Your task to perform on an android device: Open Amazon Image 0: 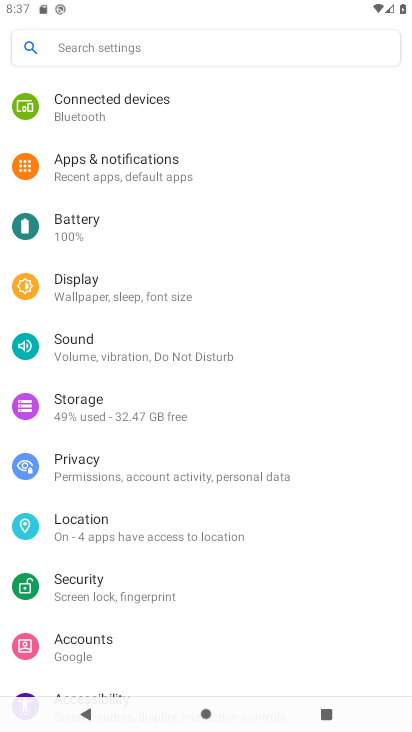
Step 0: press home button
Your task to perform on an android device: Open Amazon Image 1: 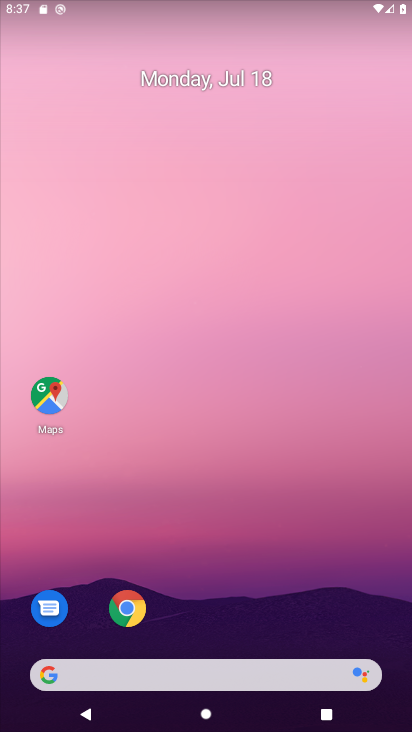
Step 1: click (128, 607)
Your task to perform on an android device: Open Amazon Image 2: 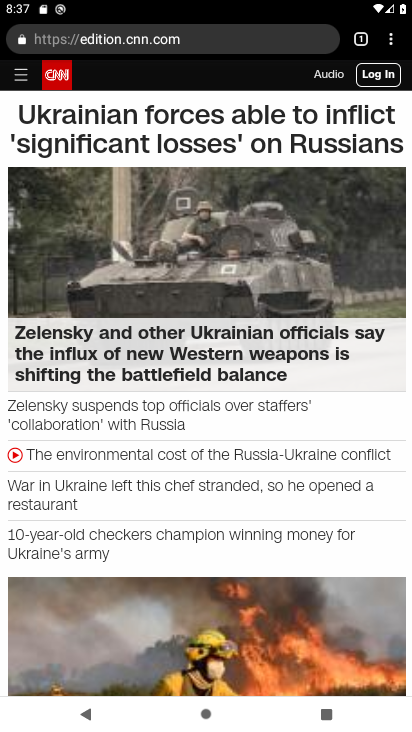
Step 2: click (294, 42)
Your task to perform on an android device: Open Amazon Image 3: 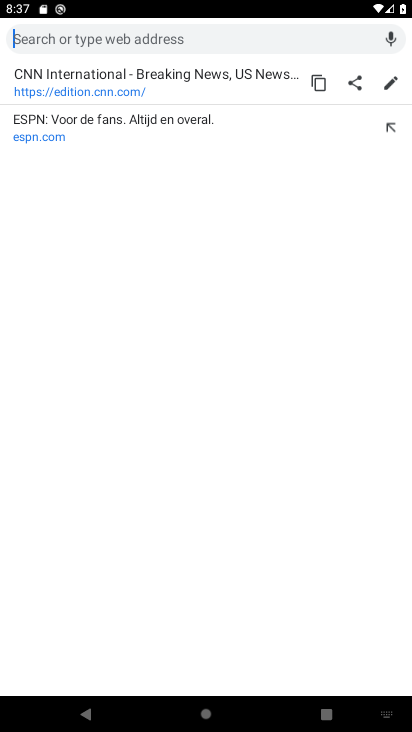
Step 3: type "Amazon"
Your task to perform on an android device: Open Amazon Image 4: 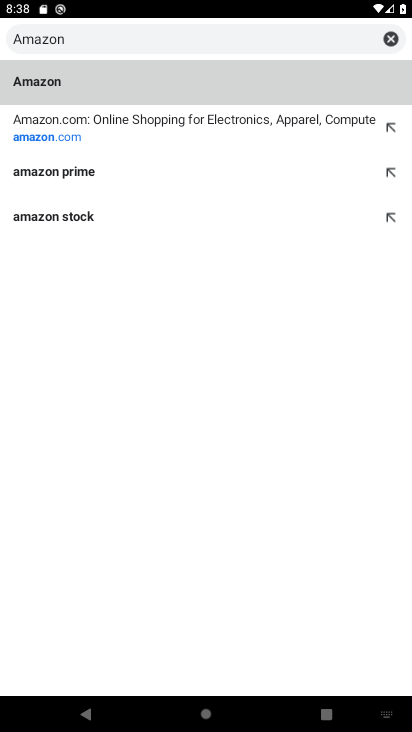
Step 4: click (103, 89)
Your task to perform on an android device: Open Amazon Image 5: 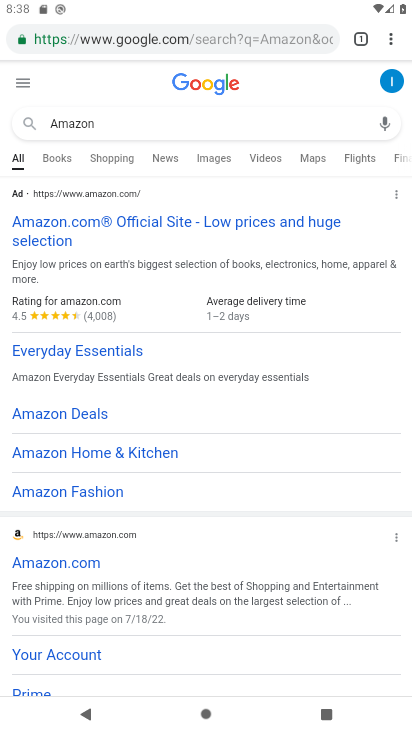
Step 5: click (85, 568)
Your task to perform on an android device: Open Amazon Image 6: 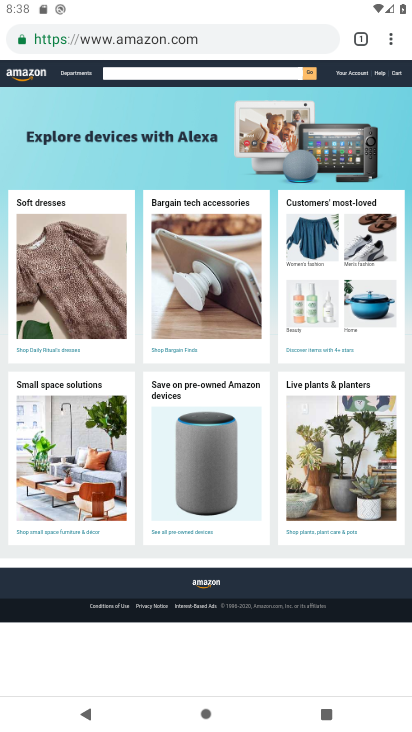
Step 6: task complete